Your task to perform on an android device: Open Google Chrome and click the shortcut for Amazon.com Image 0: 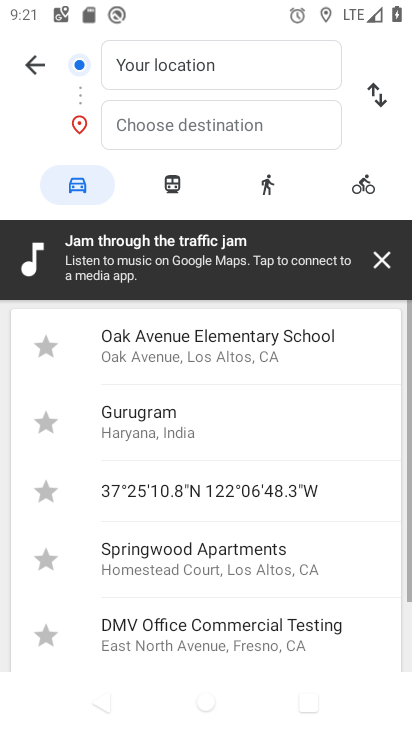
Step 0: press home button
Your task to perform on an android device: Open Google Chrome and click the shortcut for Amazon.com Image 1: 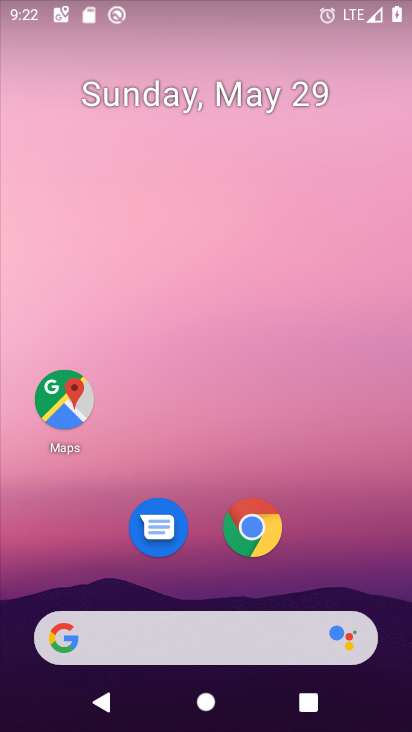
Step 1: click (248, 520)
Your task to perform on an android device: Open Google Chrome and click the shortcut for Amazon.com Image 2: 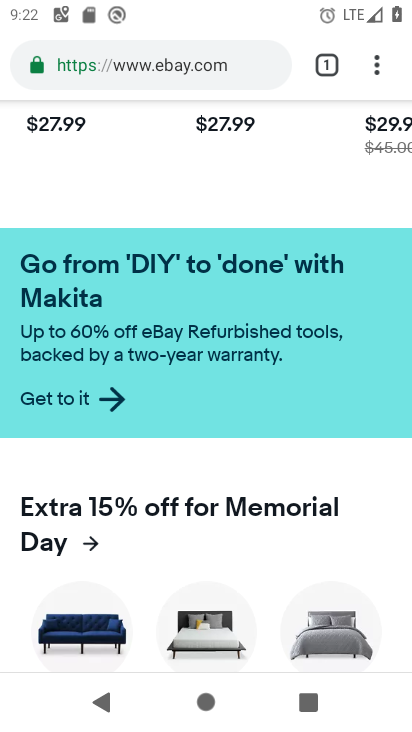
Step 2: drag from (212, 167) to (222, 620)
Your task to perform on an android device: Open Google Chrome and click the shortcut for Amazon.com Image 3: 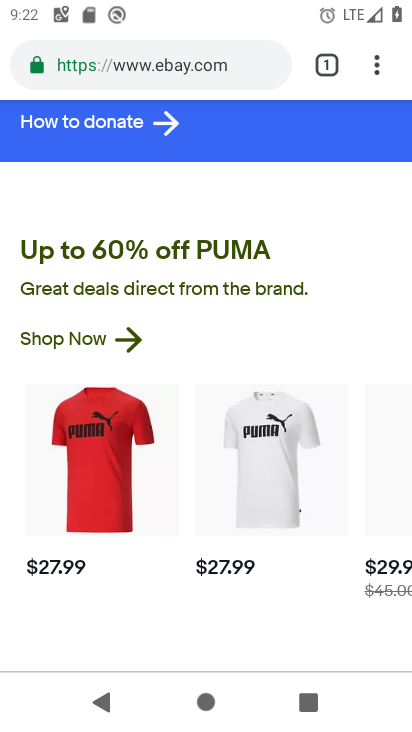
Step 3: click (331, 59)
Your task to perform on an android device: Open Google Chrome and click the shortcut for Amazon.com Image 4: 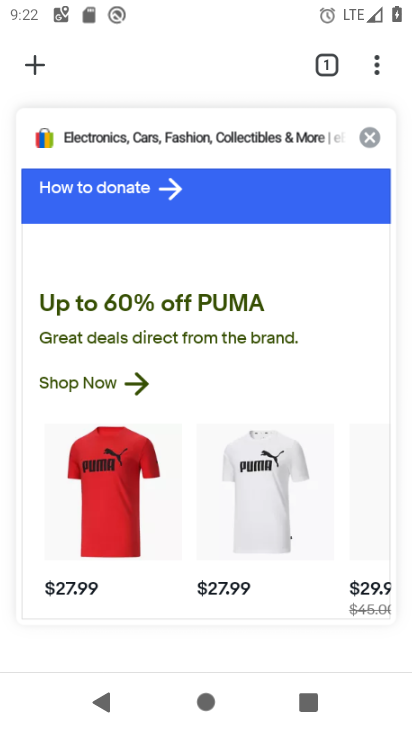
Step 4: click (369, 133)
Your task to perform on an android device: Open Google Chrome and click the shortcut for Amazon.com Image 5: 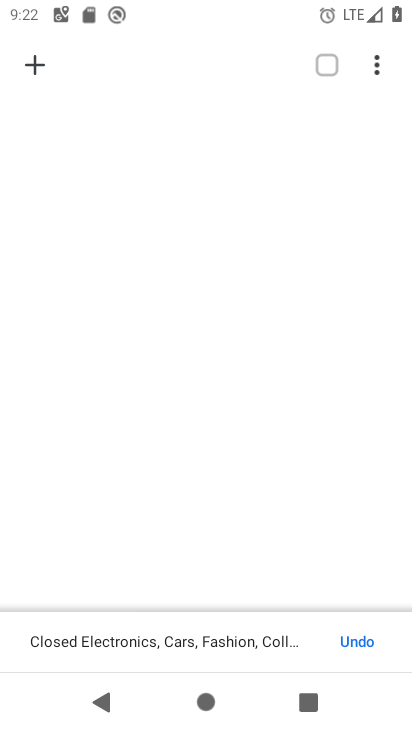
Step 5: click (41, 68)
Your task to perform on an android device: Open Google Chrome and click the shortcut for Amazon.com Image 6: 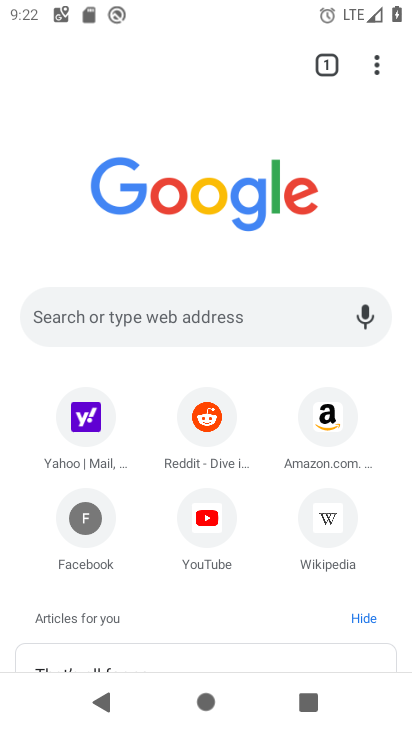
Step 6: click (324, 404)
Your task to perform on an android device: Open Google Chrome and click the shortcut for Amazon.com Image 7: 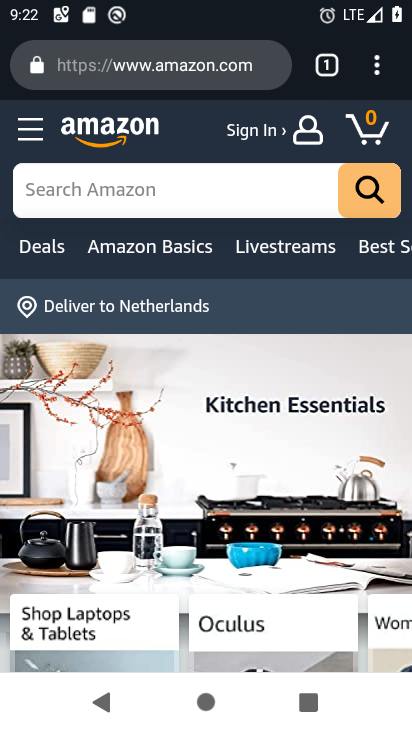
Step 7: task complete